Your task to perform on an android device: open device folders in google photos Image 0: 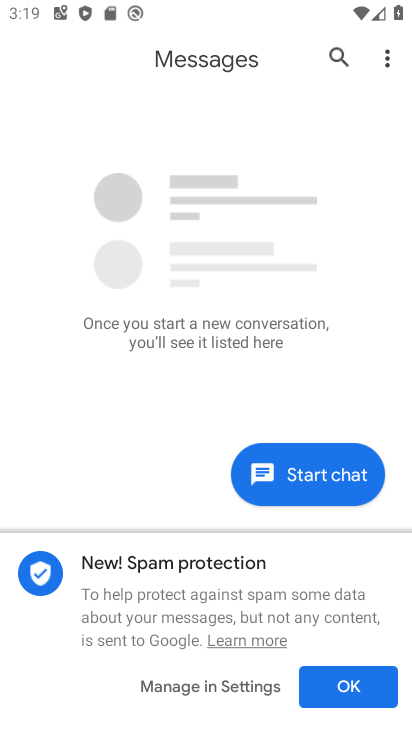
Step 0: press home button
Your task to perform on an android device: open device folders in google photos Image 1: 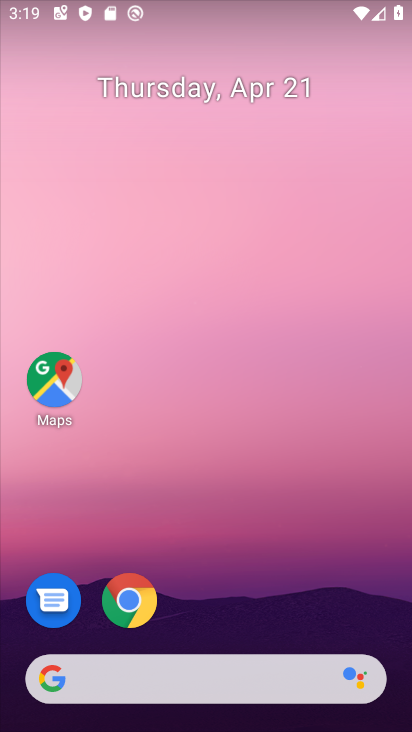
Step 1: drag from (315, 633) to (328, 69)
Your task to perform on an android device: open device folders in google photos Image 2: 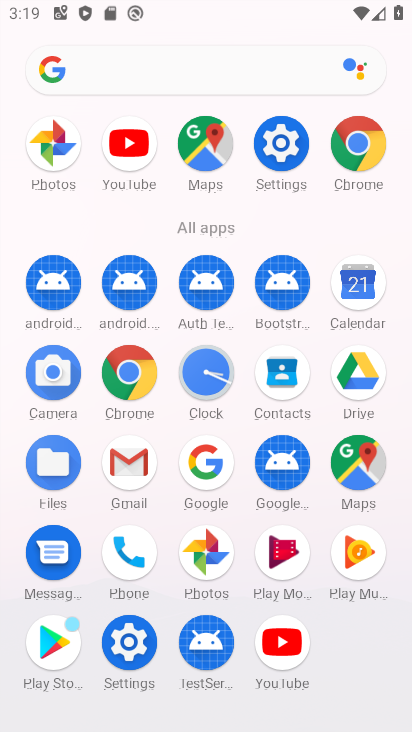
Step 2: click (41, 163)
Your task to perform on an android device: open device folders in google photos Image 3: 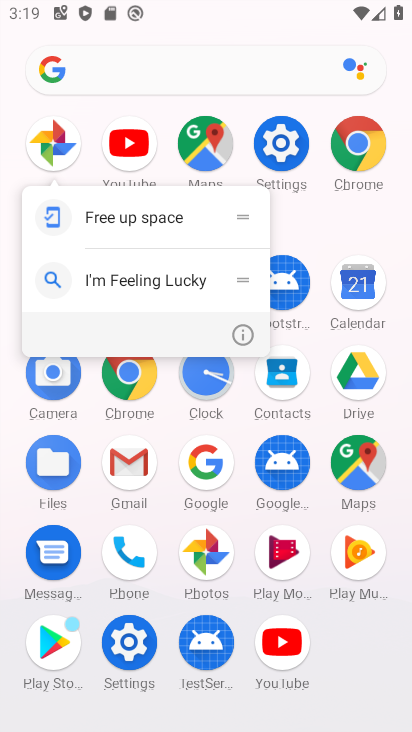
Step 3: click (41, 162)
Your task to perform on an android device: open device folders in google photos Image 4: 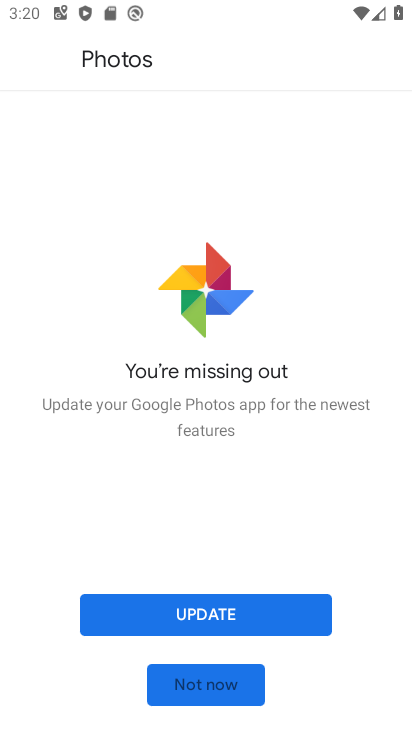
Step 4: click (202, 617)
Your task to perform on an android device: open device folders in google photos Image 5: 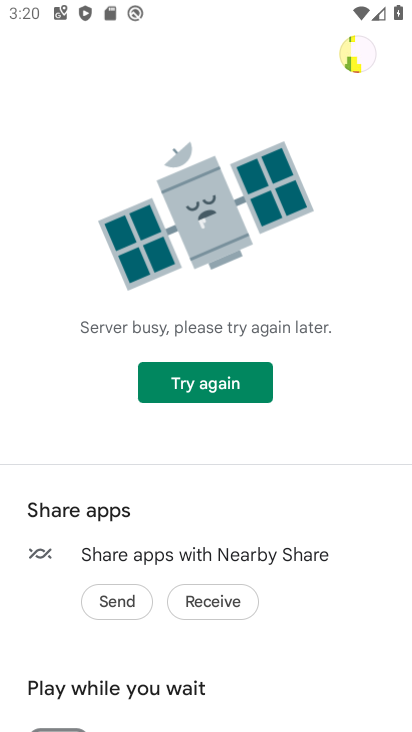
Step 5: click (137, 385)
Your task to perform on an android device: open device folders in google photos Image 6: 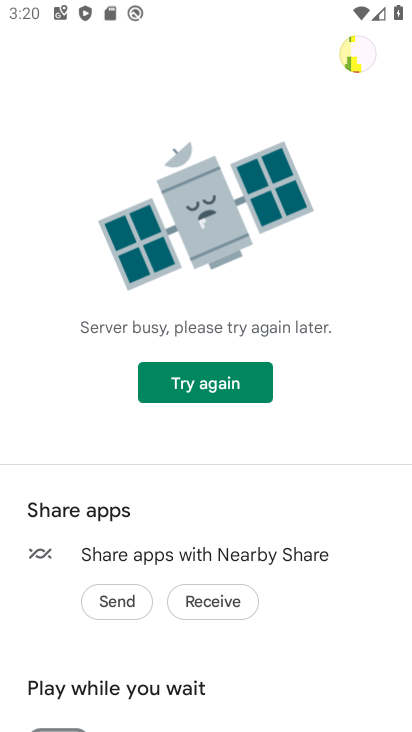
Step 6: click (193, 378)
Your task to perform on an android device: open device folders in google photos Image 7: 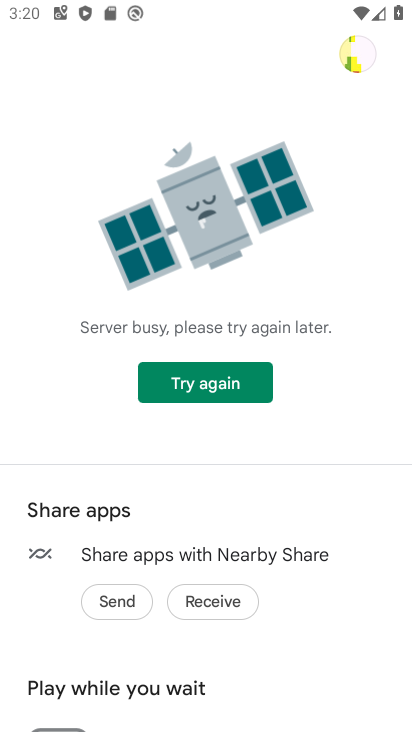
Step 7: press home button
Your task to perform on an android device: open device folders in google photos Image 8: 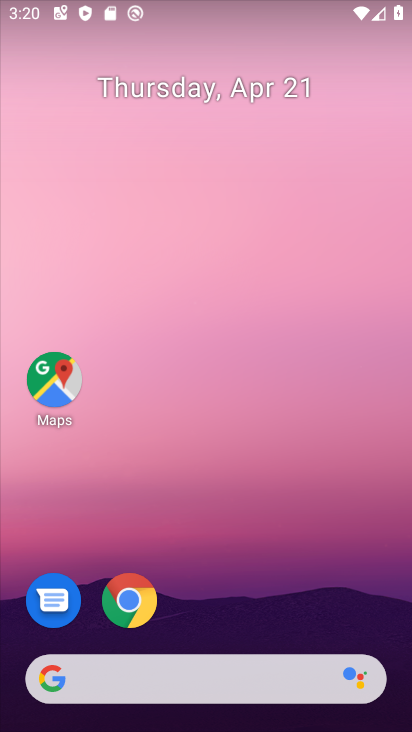
Step 8: drag from (242, 468) to (310, 7)
Your task to perform on an android device: open device folders in google photos Image 9: 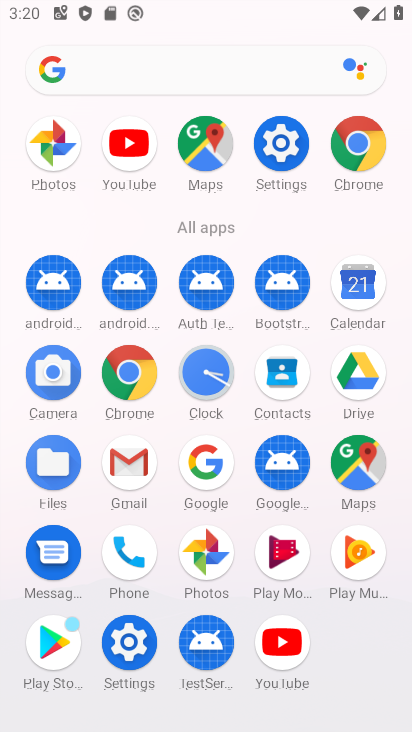
Step 9: click (51, 153)
Your task to perform on an android device: open device folders in google photos Image 10: 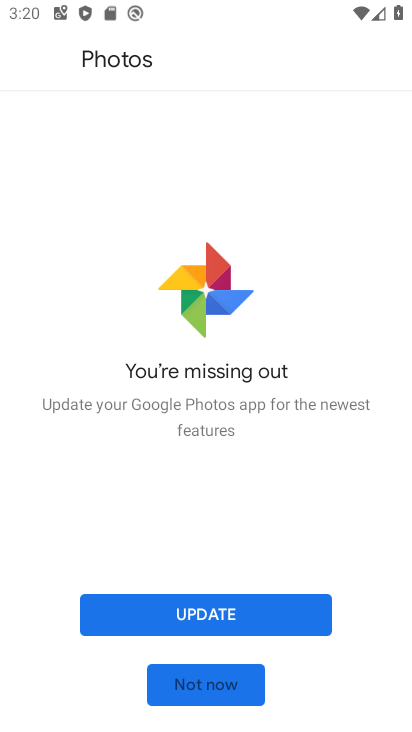
Step 10: click (205, 698)
Your task to perform on an android device: open device folders in google photos Image 11: 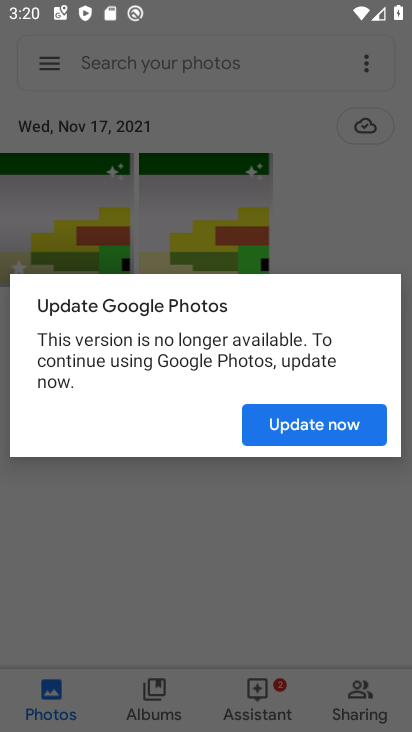
Step 11: click (265, 427)
Your task to perform on an android device: open device folders in google photos Image 12: 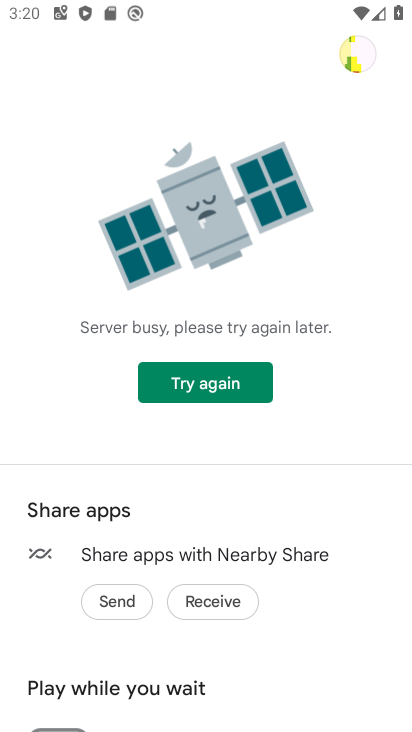
Step 12: task complete